Your task to perform on an android device: Go to wifi settings Image 0: 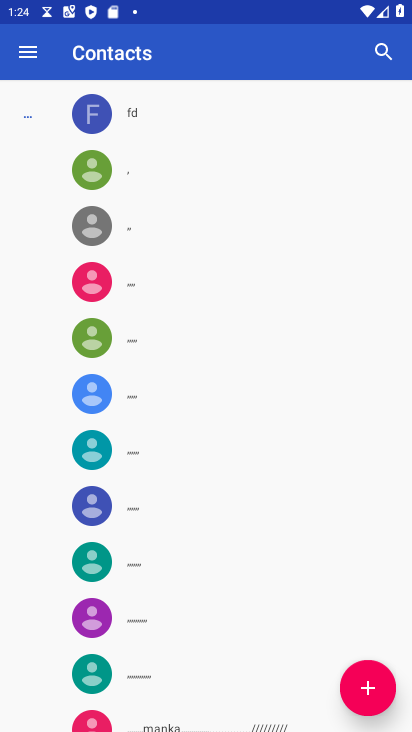
Step 0: press home button
Your task to perform on an android device: Go to wifi settings Image 1: 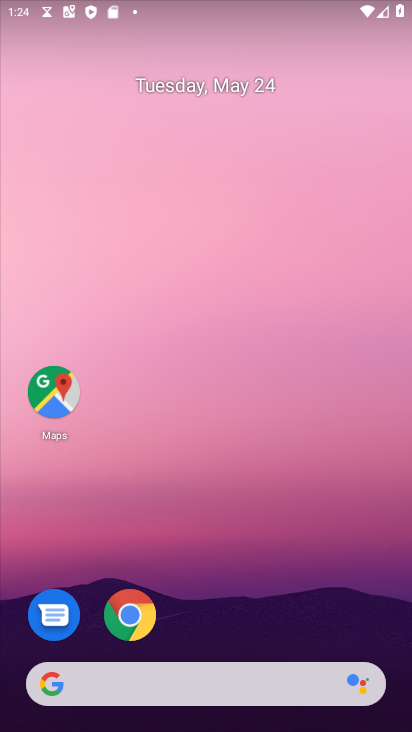
Step 1: drag from (214, 646) to (234, 43)
Your task to perform on an android device: Go to wifi settings Image 2: 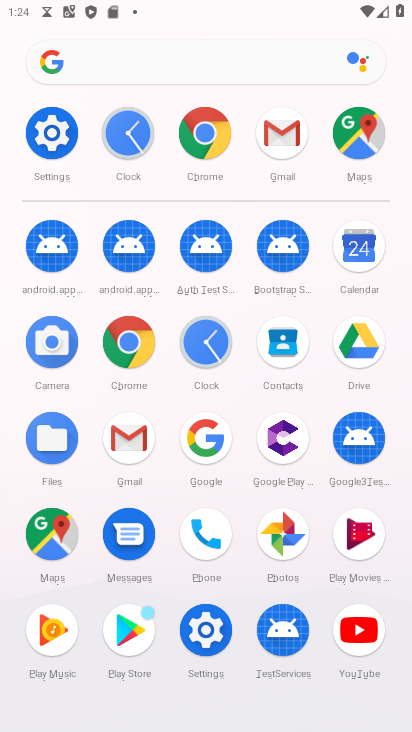
Step 2: click (51, 123)
Your task to perform on an android device: Go to wifi settings Image 3: 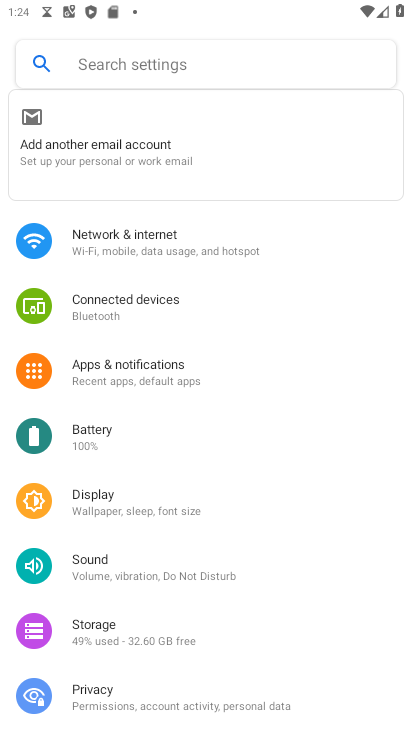
Step 3: click (184, 238)
Your task to perform on an android device: Go to wifi settings Image 4: 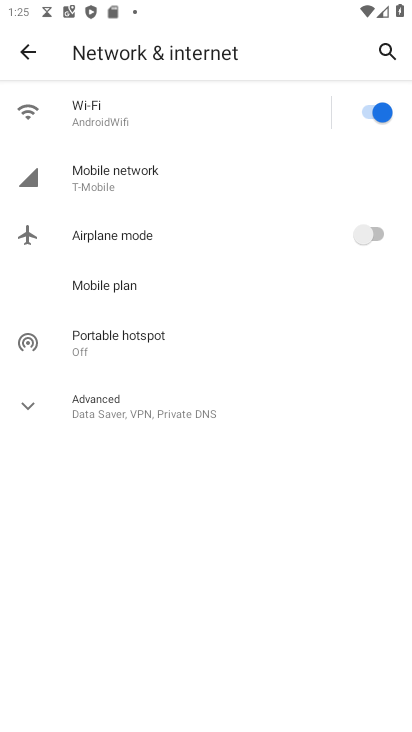
Step 4: click (146, 106)
Your task to perform on an android device: Go to wifi settings Image 5: 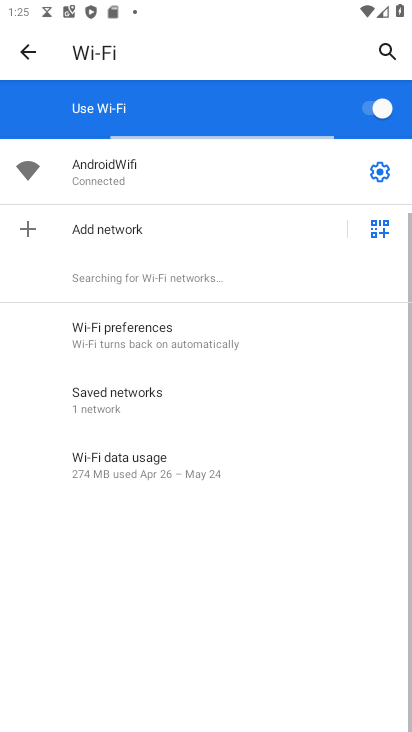
Step 5: task complete